Your task to perform on an android device: Show me popular videos on Youtube Image 0: 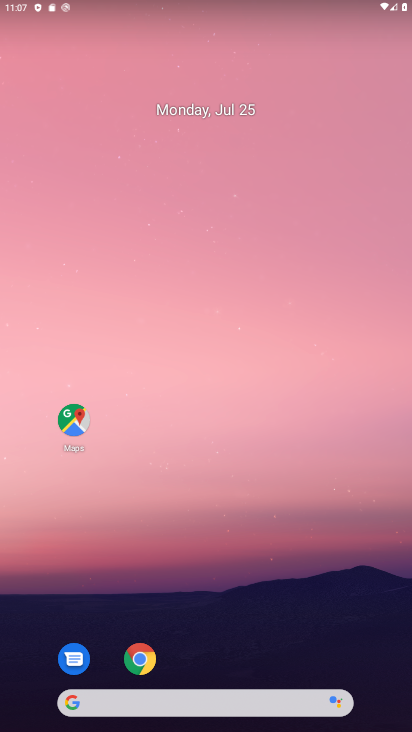
Step 0: drag from (57, 660) to (328, 10)
Your task to perform on an android device: Show me popular videos on Youtube Image 1: 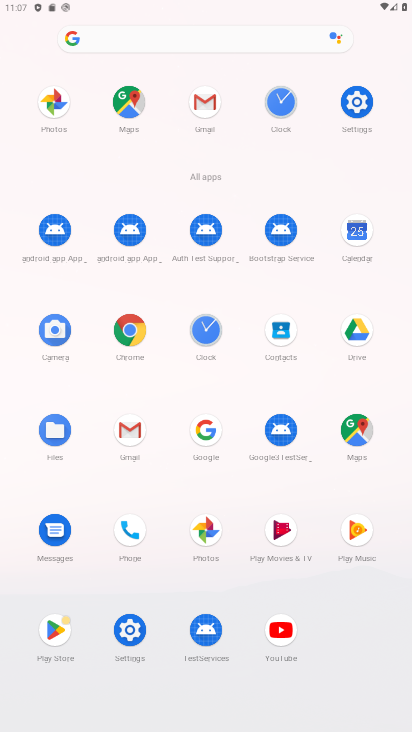
Step 1: click (273, 638)
Your task to perform on an android device: Show me popular videos on Youtube Image 2: 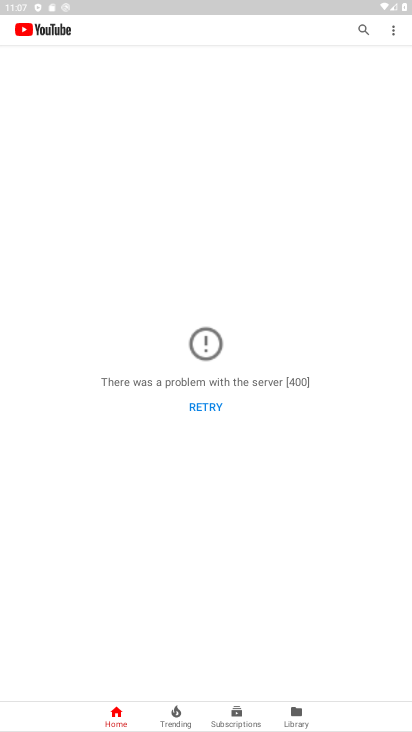
Step 2: click (363, 23)
Your task to perform on an android device: Show me popular videos on Youtube Image 3: 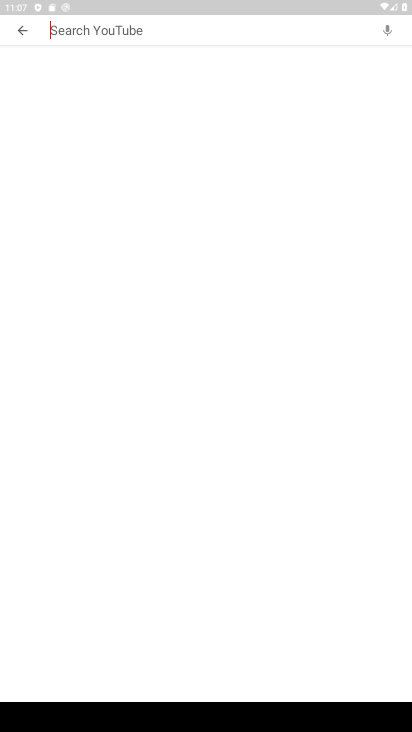
Step 3: type "popular videos"
Your task to perform on an android device: Show me popular videos on Youtube Image 4: 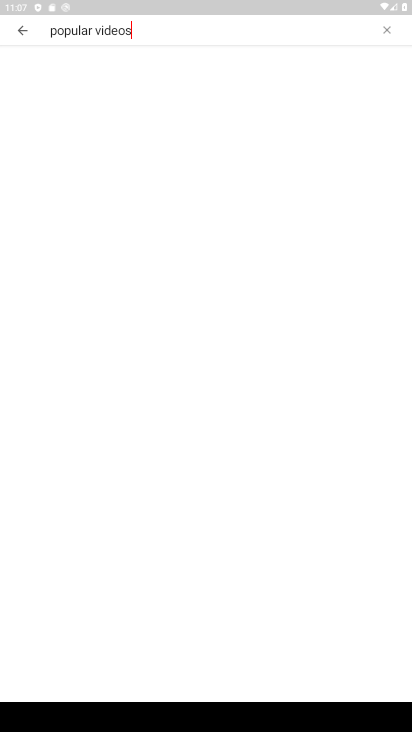
Step 4: type ""
Your task to perform on an android device: Show me popular videos on Youtube Image 5: 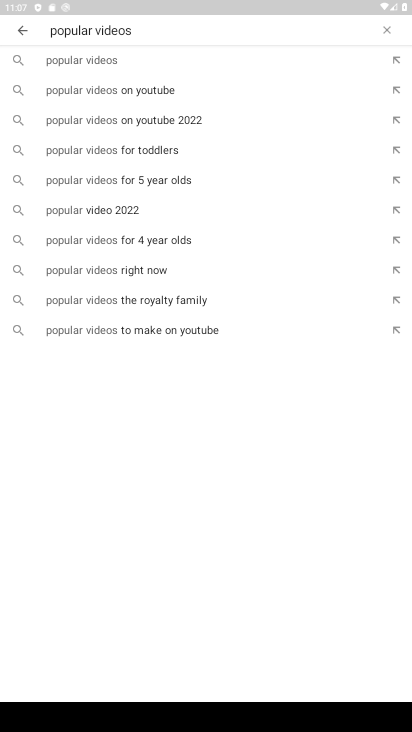
Step 5: click (94, 86)
Your task to perform on an android device: Show me popular videos on Youtube Image 6: 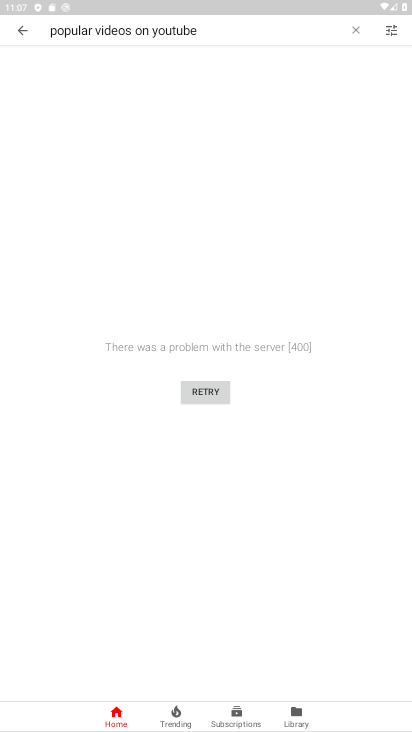
Step 6: task complete